Your task to perform on an android device: change keyboard looks Image 0: 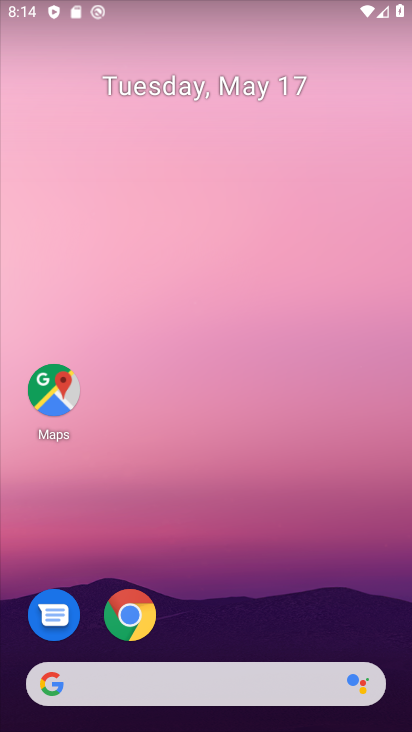
Step 0: drag from (384, 639) to (342, 196)
Your task to perform on an android device: change keyboard looks Image 1: 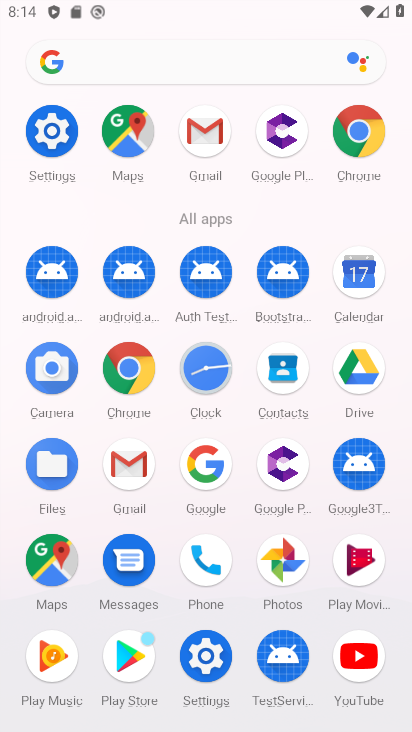
Step 1: click (210, 653)
Your task to perform on an android device: change keyboard looks Image 2: 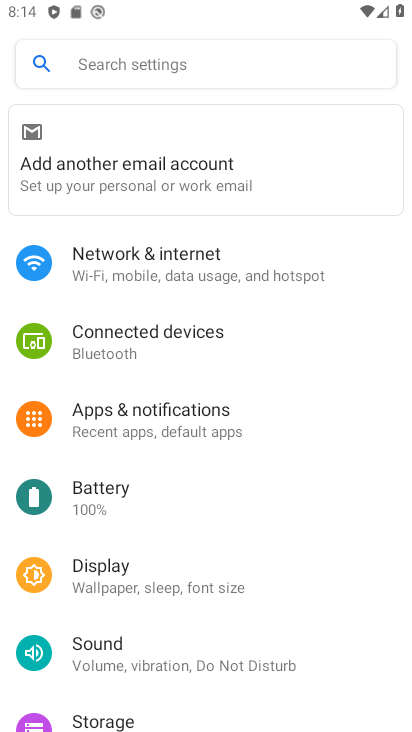
Step 2: drag from (275, 680) to (294, 300)
Your task to perform on an android device: change keyboard looks Image 3: 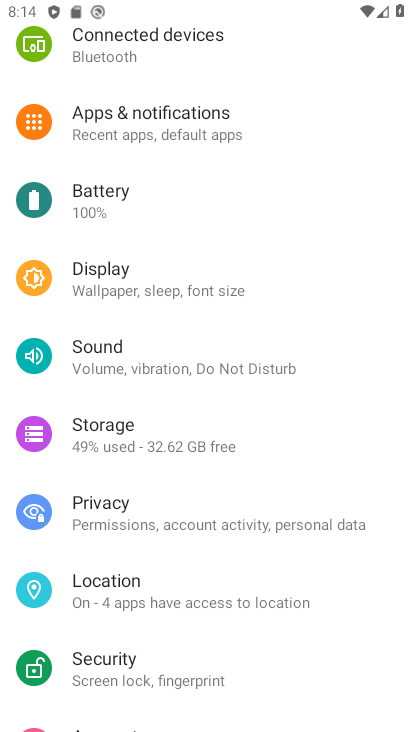
Step 3: drag from (318, 616) to (327, 309)
Your task to perform on an android device: change keyboard looks Image 4: 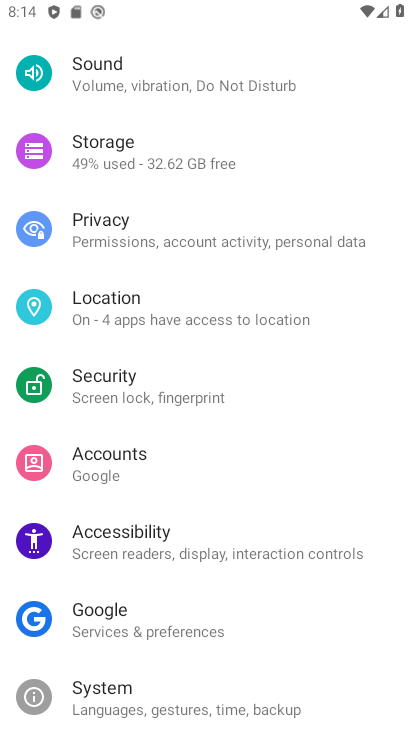
Step 4: drag from (322, 602) to (319, 284)
Your task to perform on an android device: change keyboard looks Image 5: 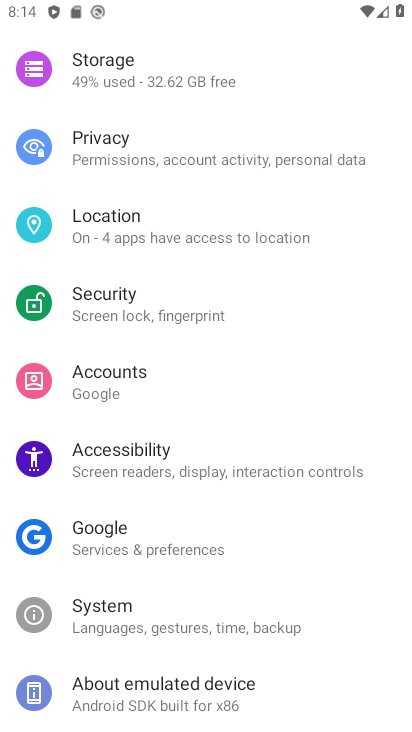
Step 5: drag from (315, 617) to (324, 324)
Your task to perform on an android device: change keyboard looks Image 6: 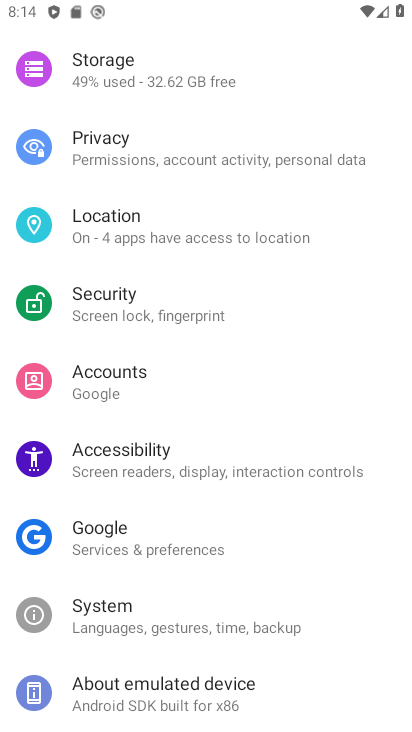
Step 6: click (99, 613)
Your task to perform on an android device: change keyboard looks Image 7: 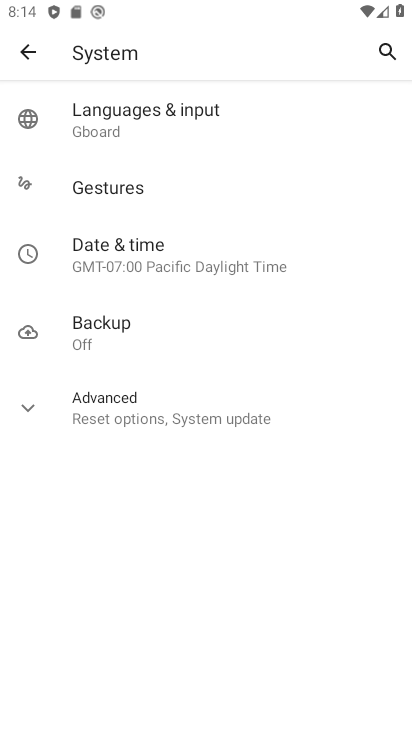
Step 7: click (121, 123)
Your task to perform on an android device: change keyboard looks Image 8: 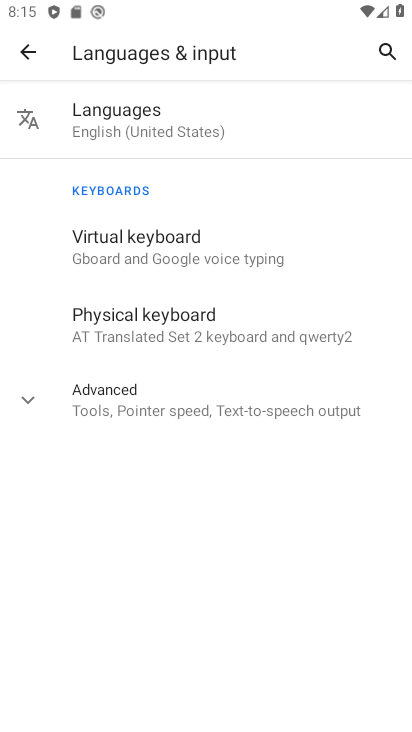
Step 8: click (125, 313)
Your task to perform on an android device: change keyboard looks Image 9: 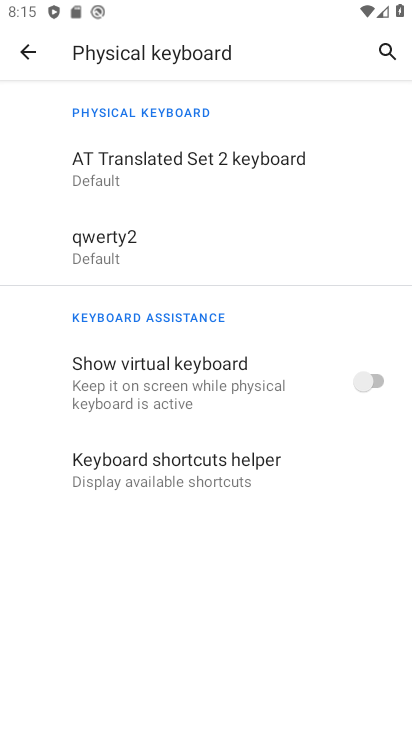
Step 9: click (97, 246)
Your task to perform on an android device: change keyboard looks Image 10: 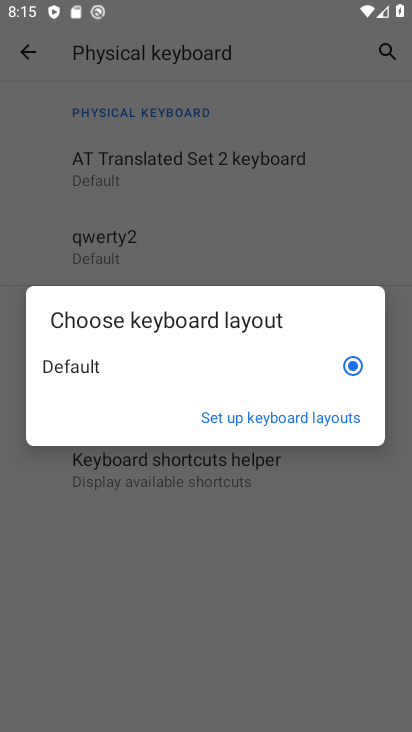
Step 10: click (259, 416)
Your task to perform on an android device: change keyboard looks Image 11: 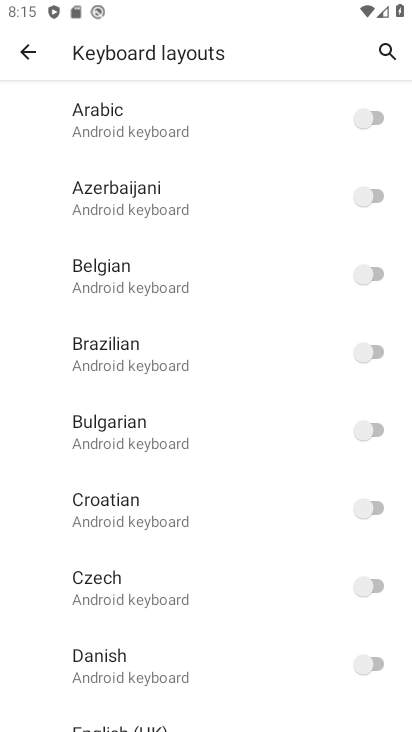
Step 11: click (376, 656)
Your task to perform on an android device: change keyboard looks Image 12: 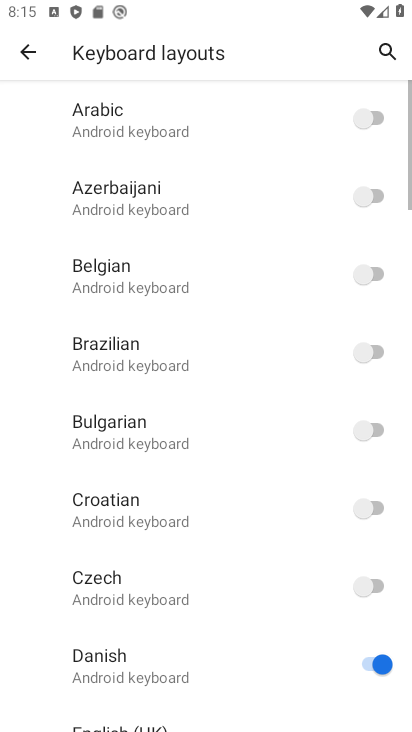
Step 12: task complete